Your task to perform on an android device: Open the map Image 0: 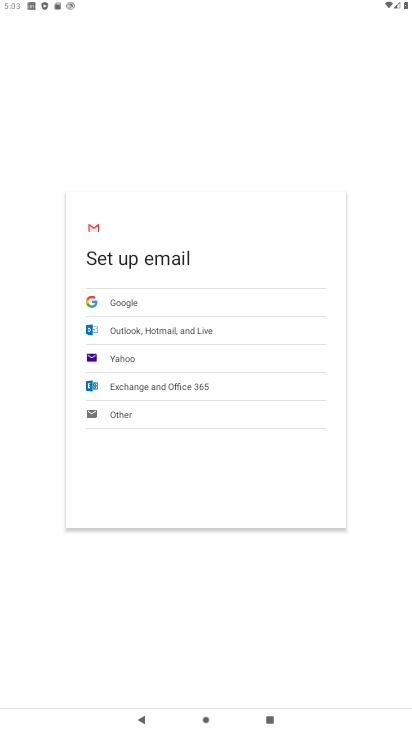
Step 0: press home button
Your task to perform on an android device: Open the map Image 1: 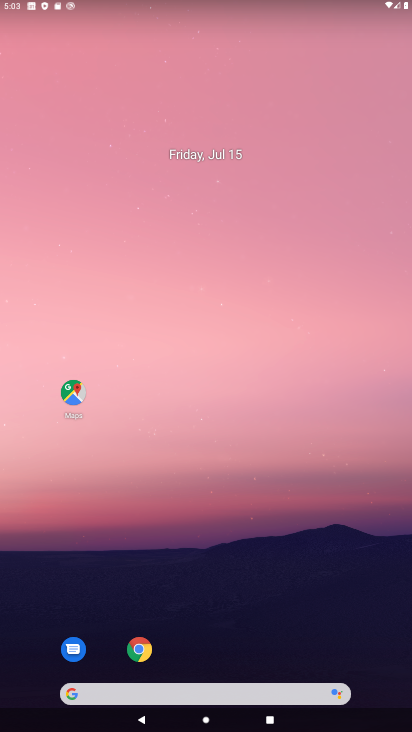
Step 1: drag from (208, 693) to (252, 188)
Your task to perform on an android device: Open the map Image 2: 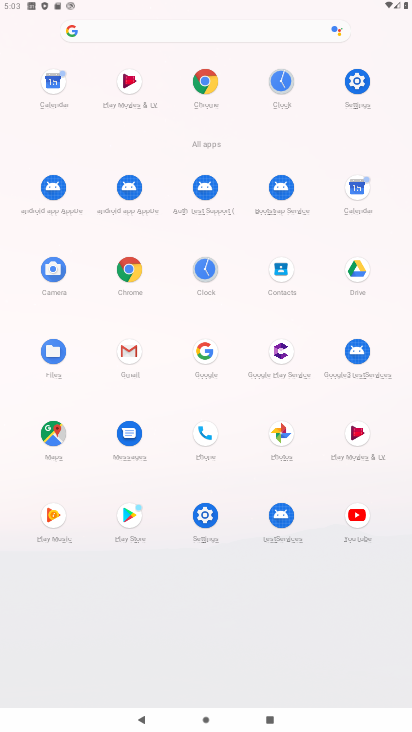
Step 2: click (50, 436)
Your task to perform on an android device: Open the map Image 3: 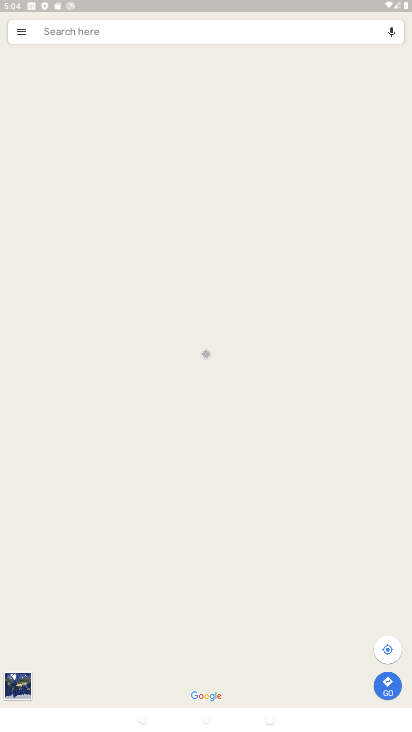
Step 3: task complete